Your task to perform on an android device: toggle javascript in the chrome app Image 0: 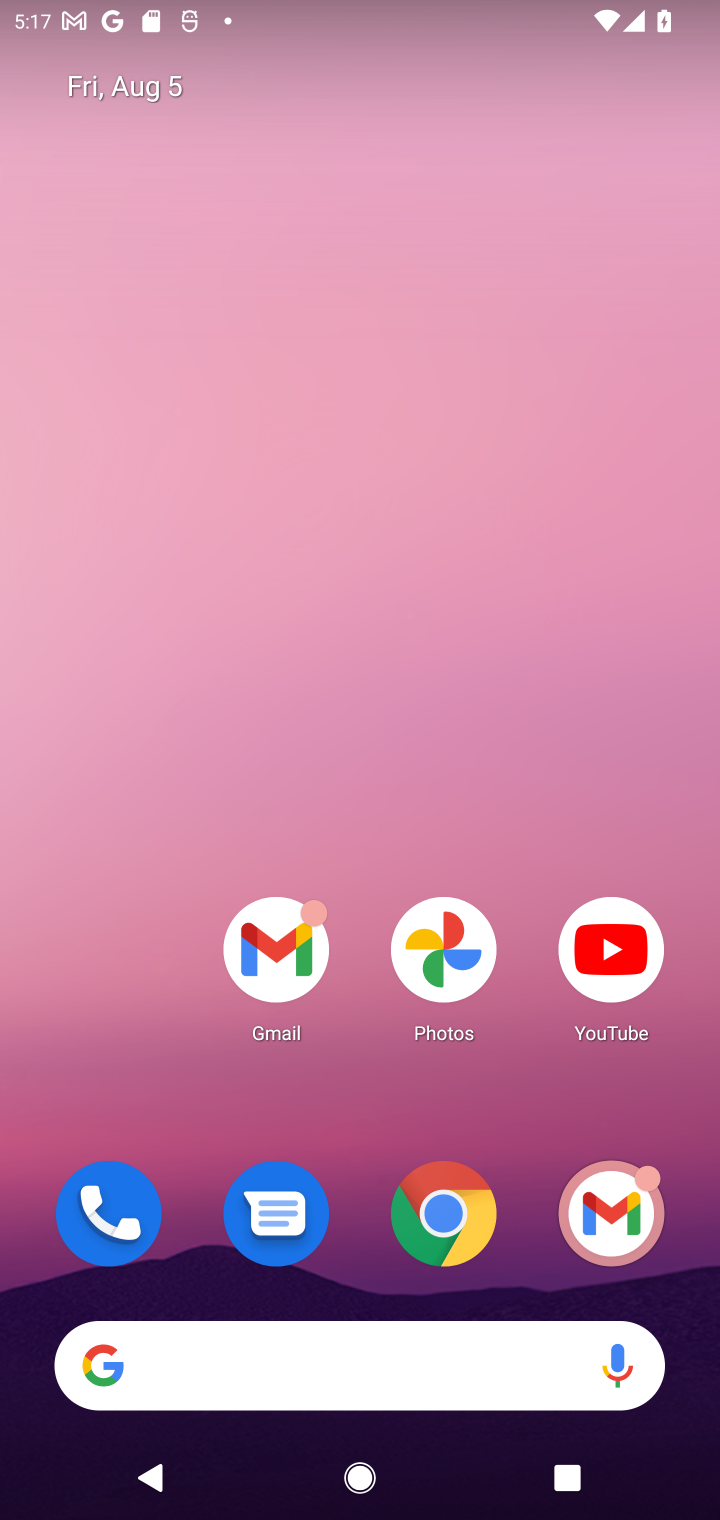
Step 0: click (478, 1228)
Your task to perform on an android device: toggle javascript in the chrome app Image 1: 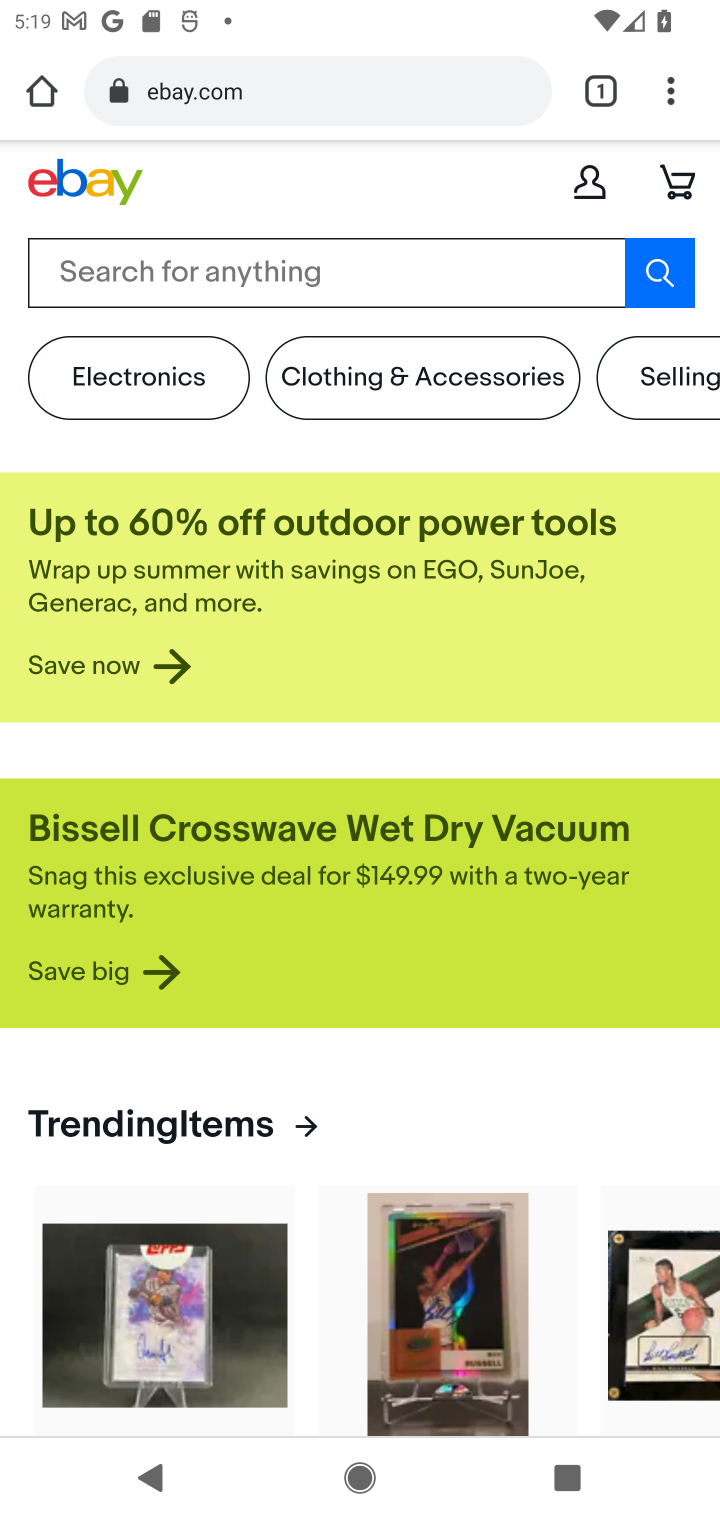
Step 1: click (700, 106)
Your task to perform on an android device: toggle javascript in the chrome app Image 2: 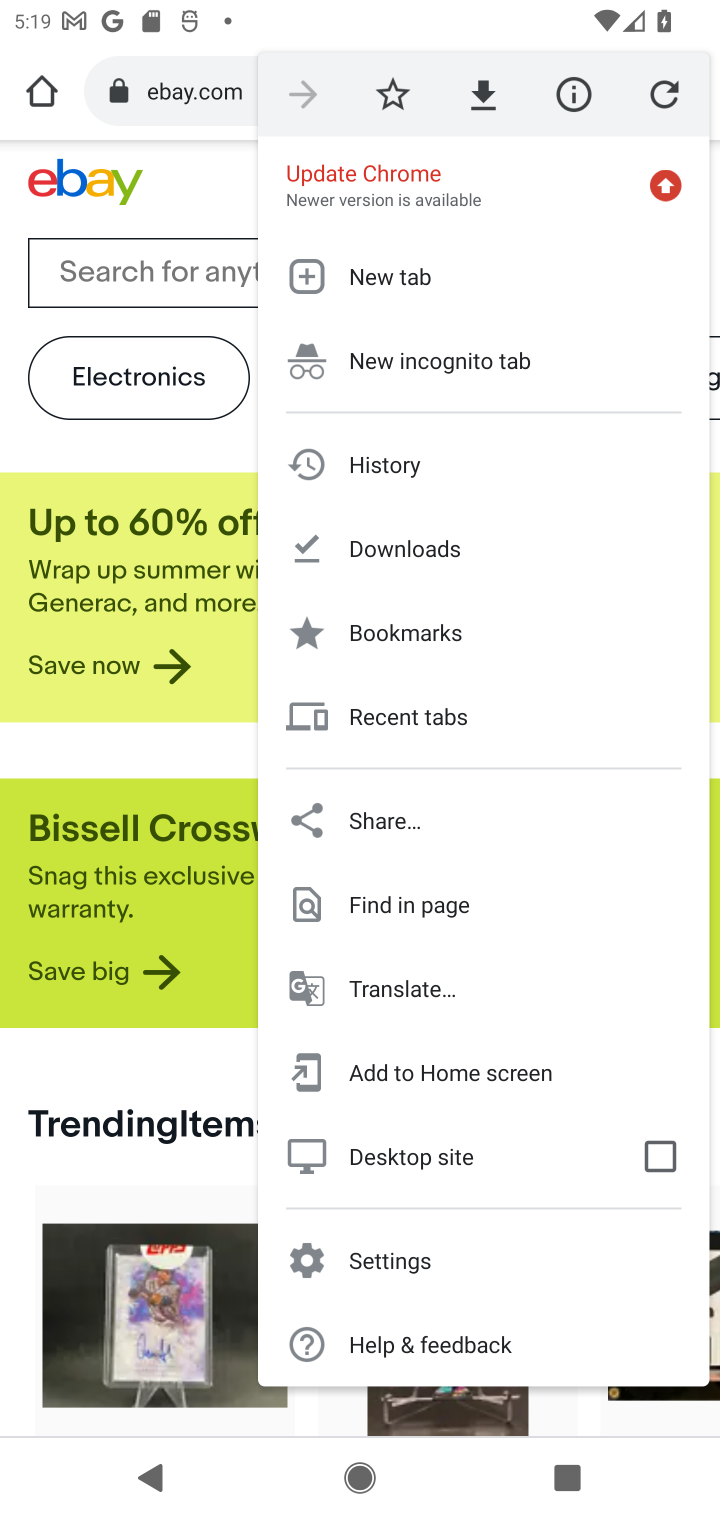
Step 2: click (411, 1284)
Your task to perform on an android device: toggle javascript in the chrome app Image 3: 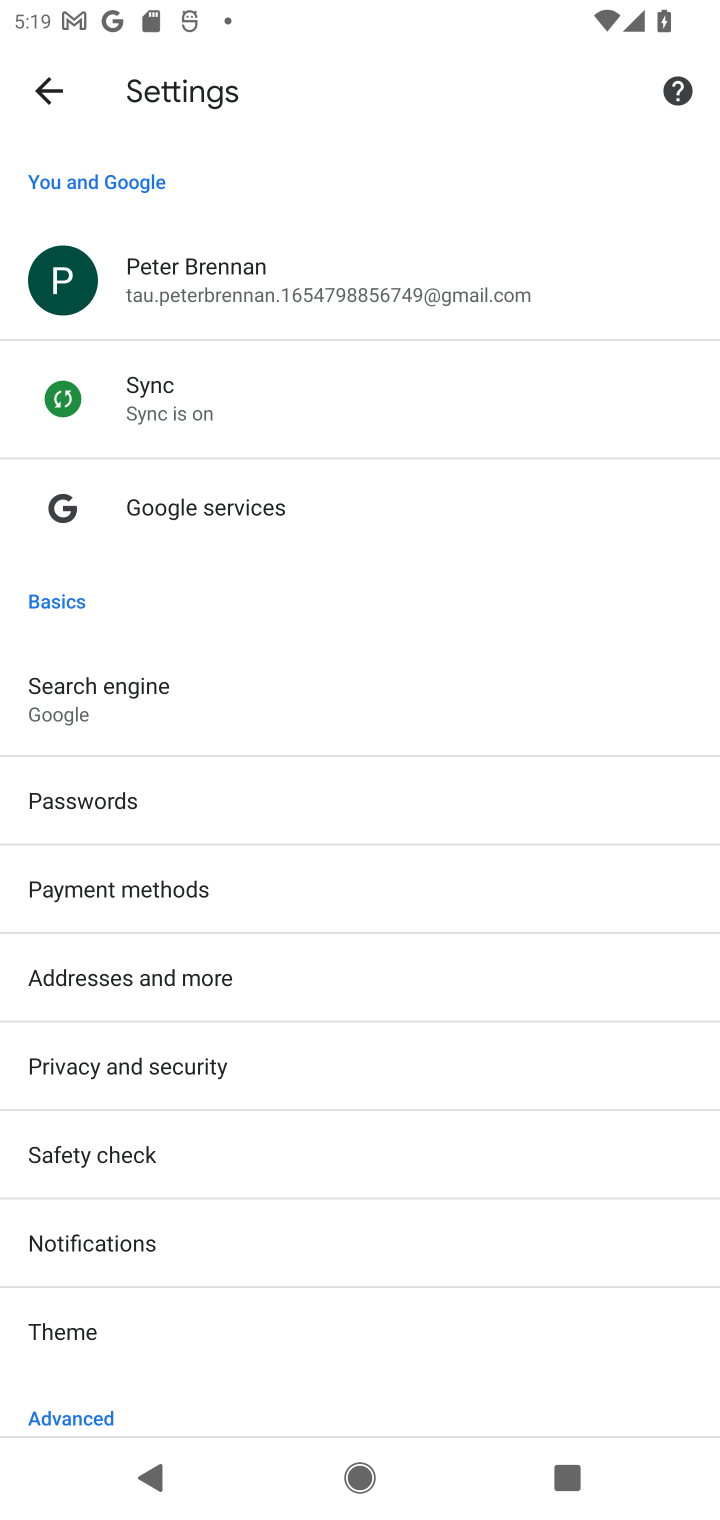
Step 3: drag from (255, 1357) to (230, 154)
Your task to perform on an android device: toggle javascript in the chrome app Image 4: 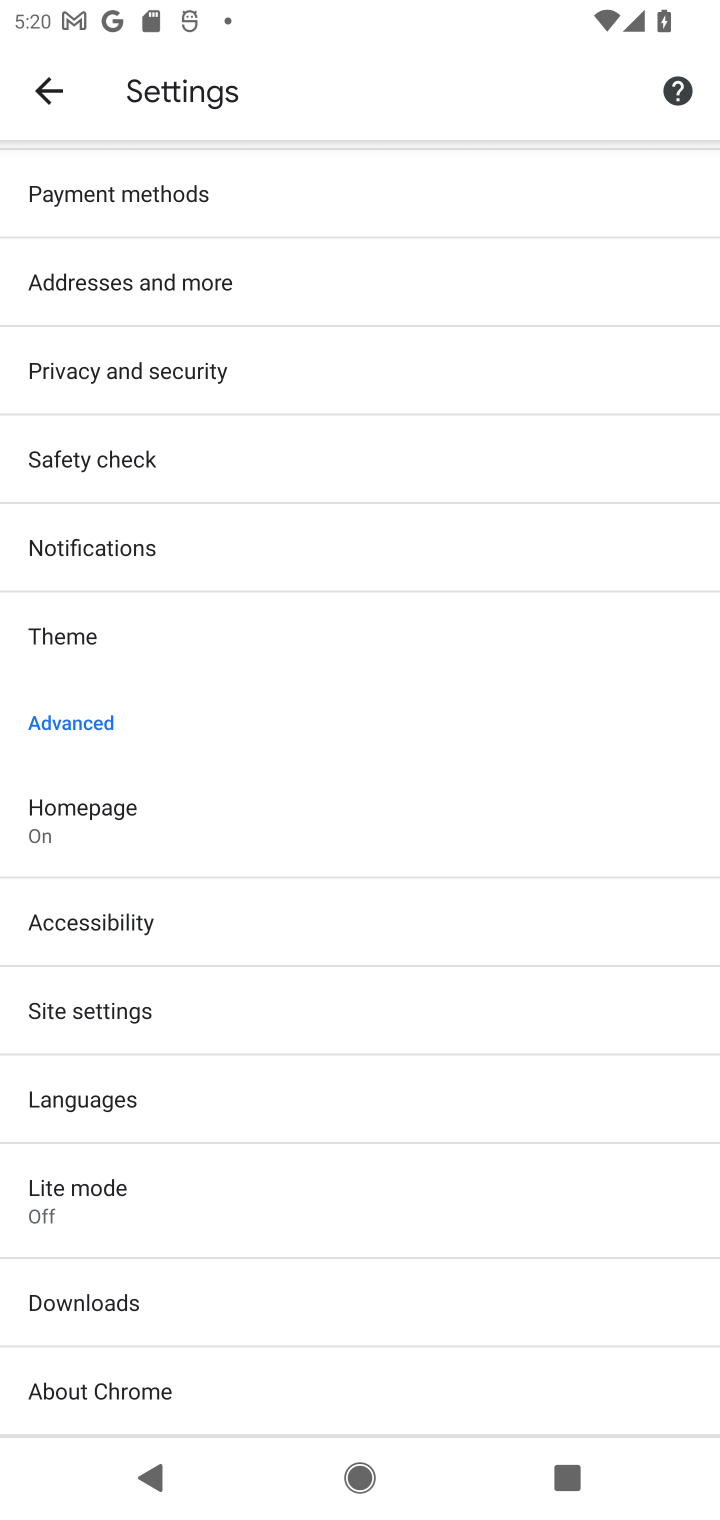
Step 4: click (297, 1029)
Your task to perform on an android device: toggle javascript in the chrome app Image 5: 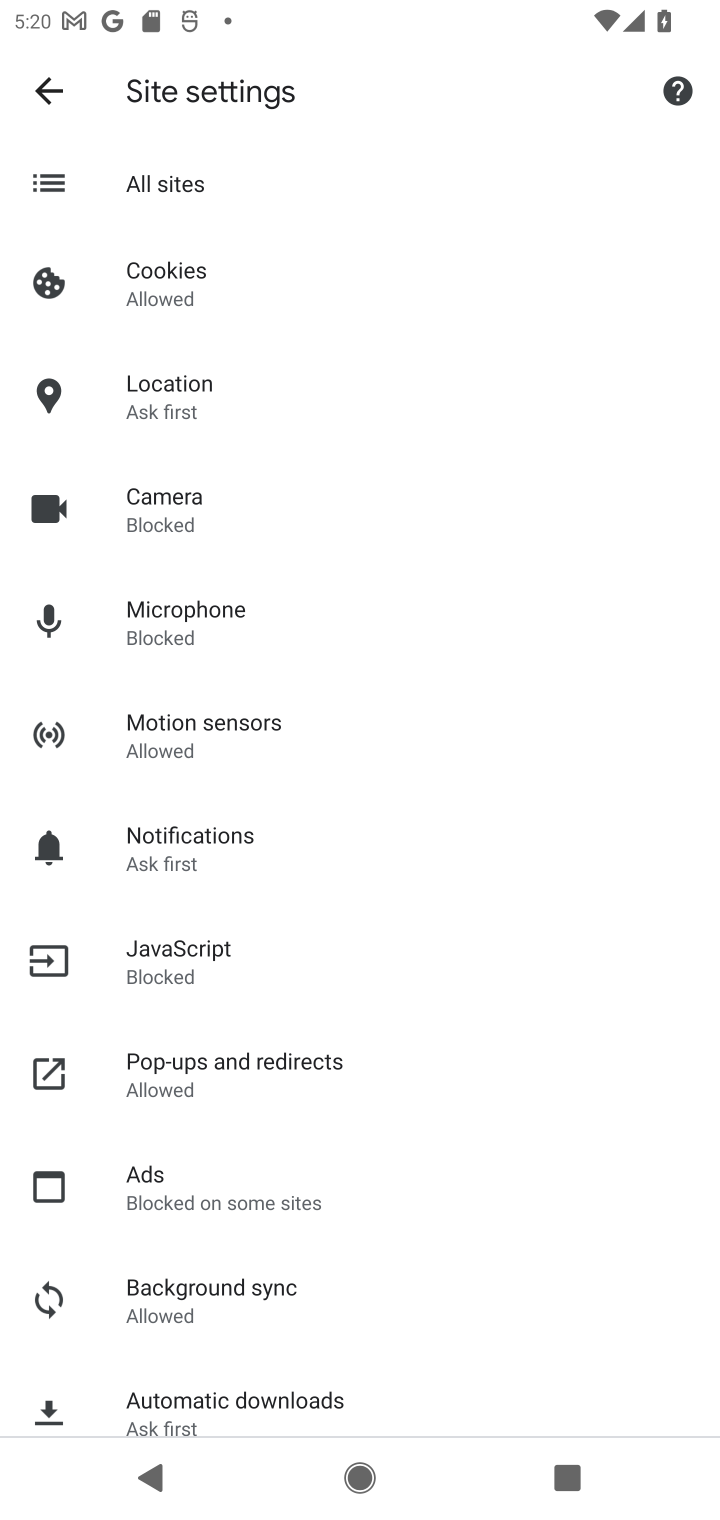
Step 5: click (301, 954)
Your task to perform on an android device: toggle javascript in the chrome app Image 6: 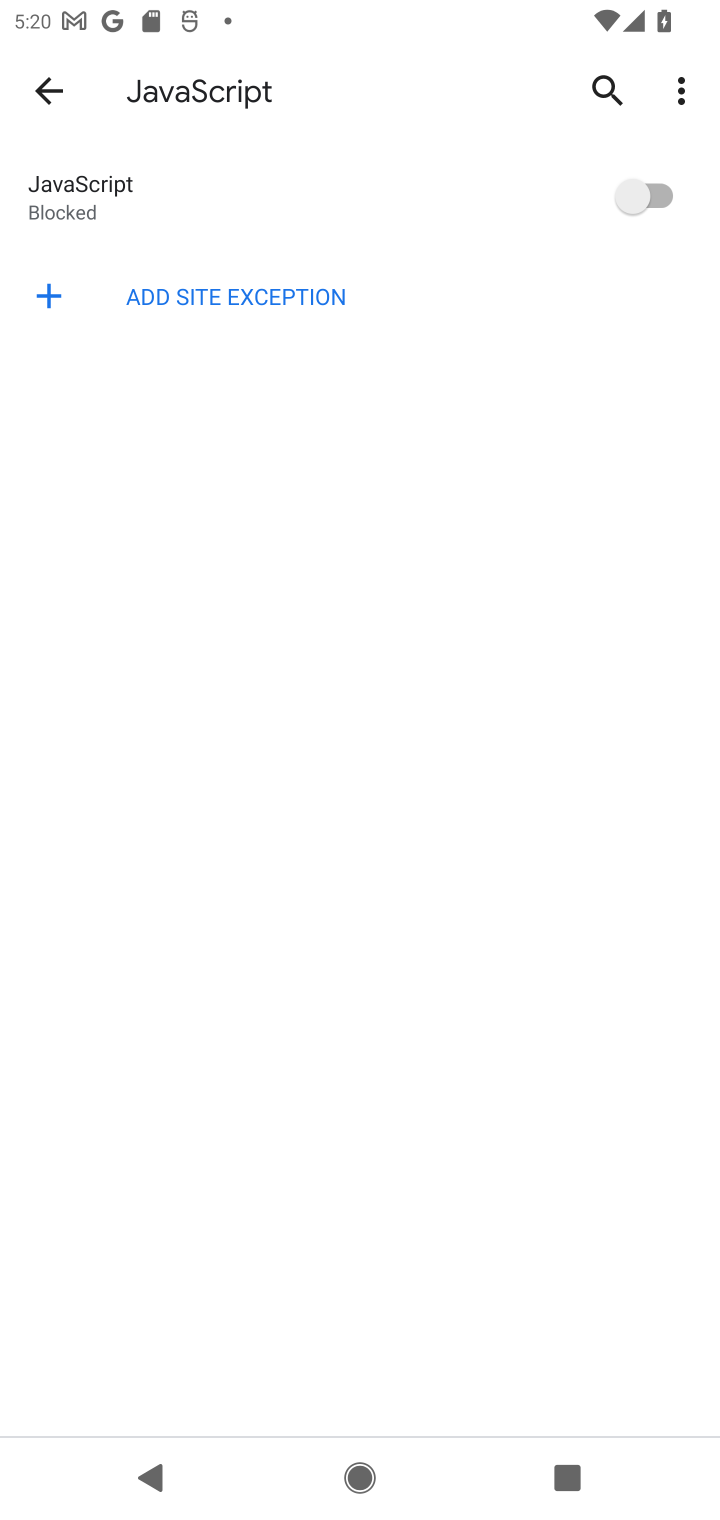
Step 6: click (642, 177)
Your task to perform on an android device: toggle javascript in the chrome app Image 7: 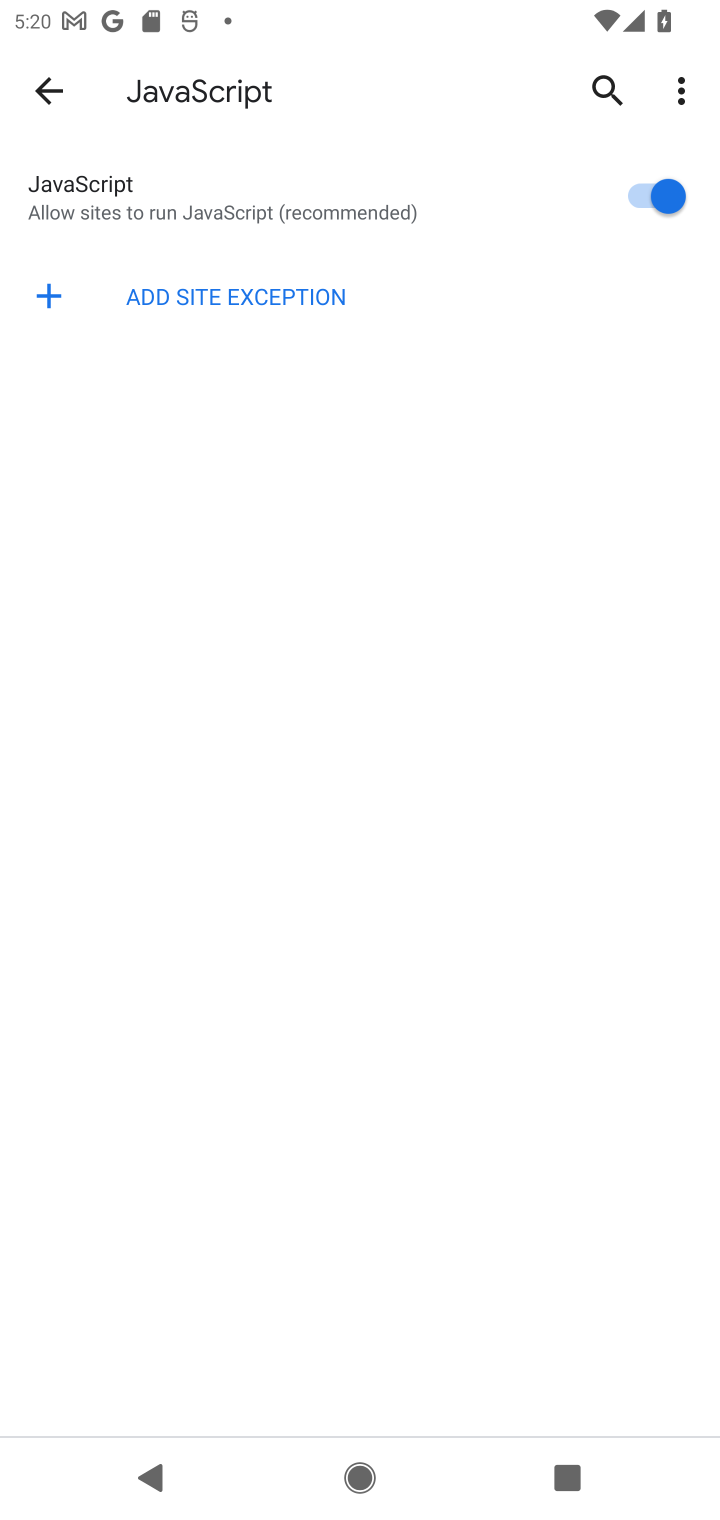
Step 7: task complete